Your task to perform on an android device: open app "Google Keep" Image 0: 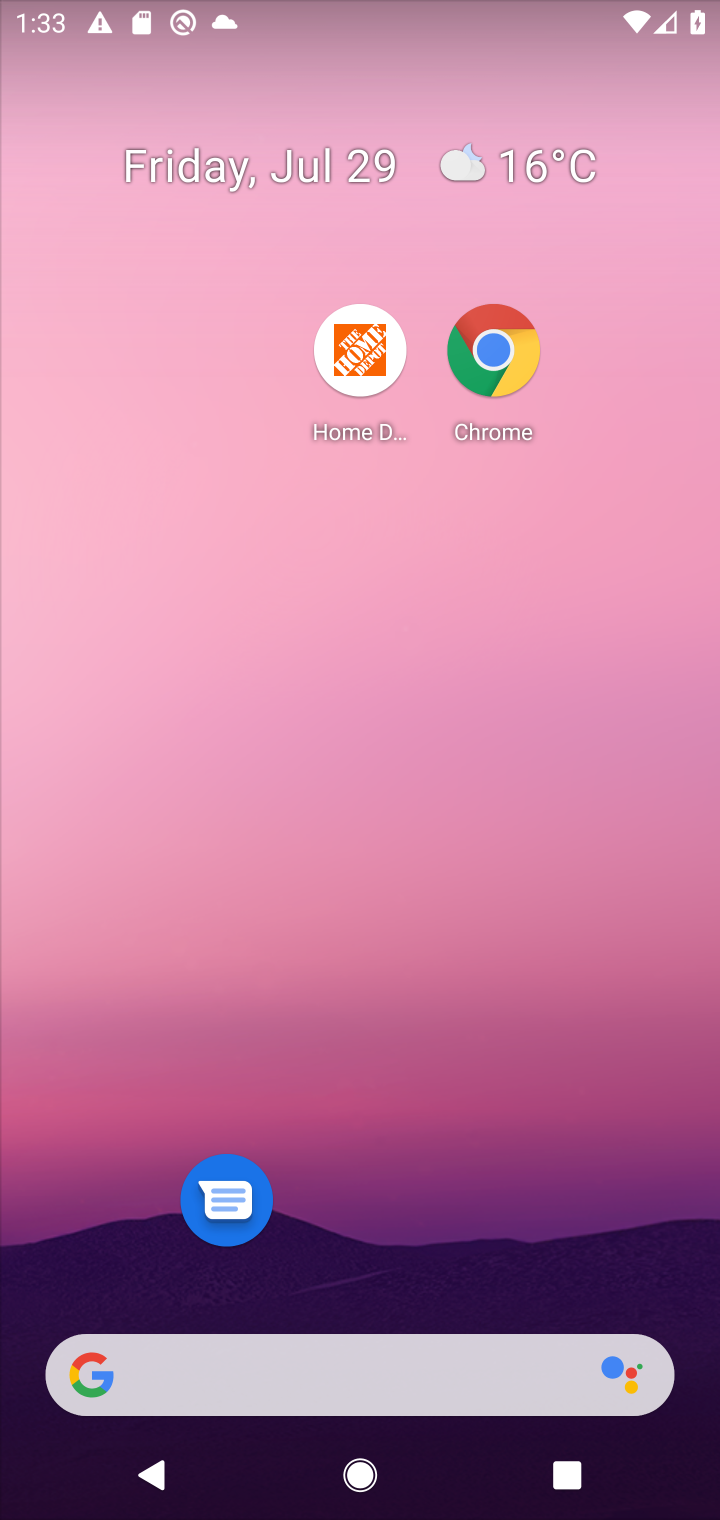
Step 0: drag from (593, 848) to (674, 8)
Your task to perform on an android device: open app "Google Keep" Image 1: 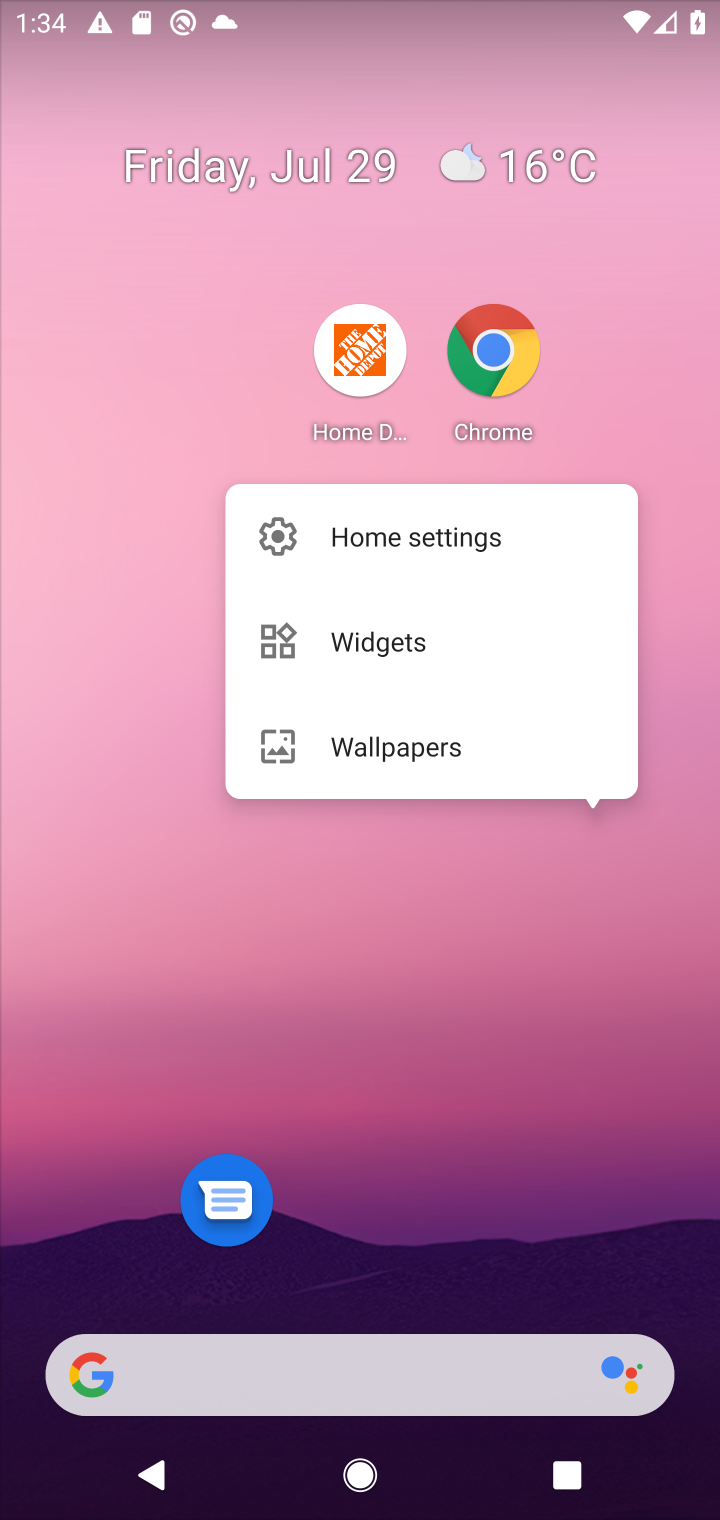
Step 1: click (488, 1167)
Your task to perform on an android device: open app "Google Keep" Image 2: 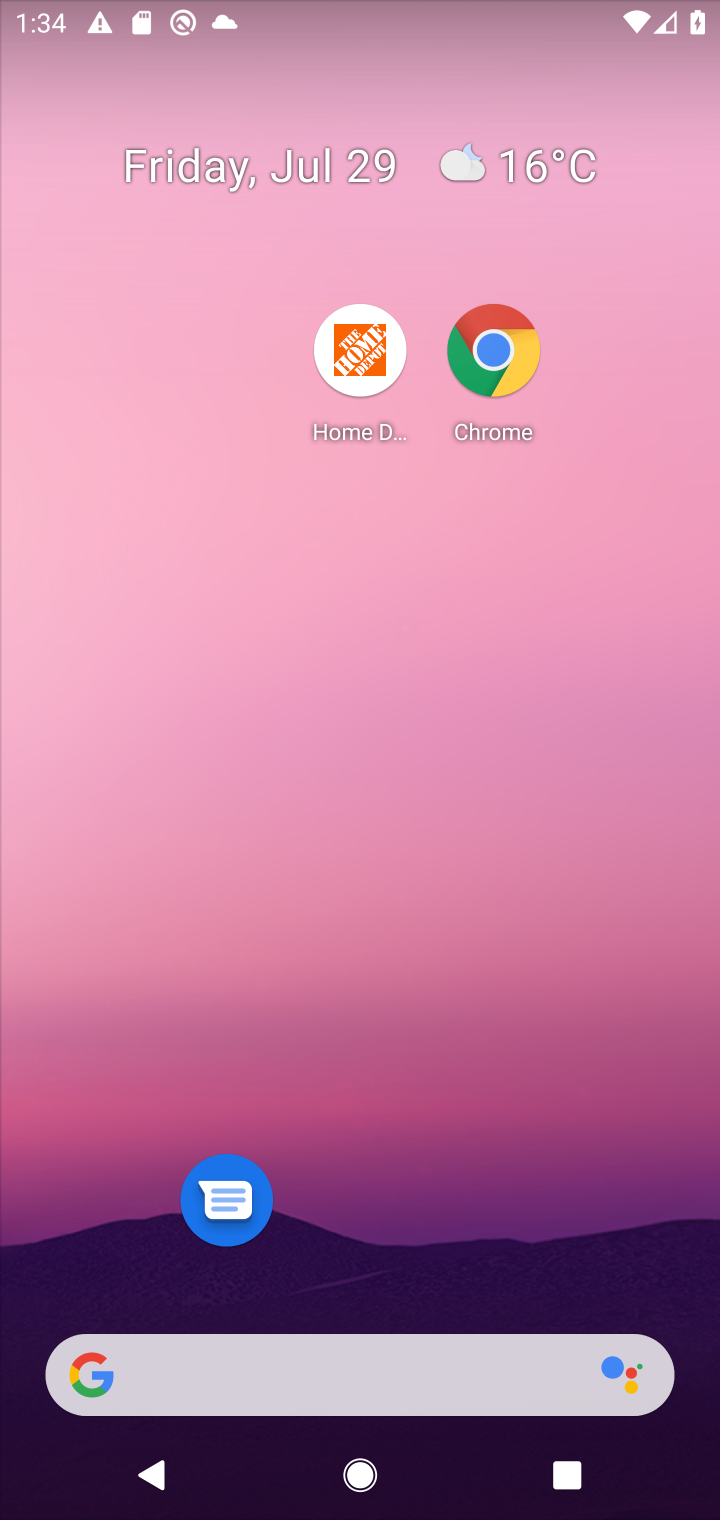
Step 2: drag from (488, 1167) to (478, 90)
Your task to perform on an android device: open app "Google Keep" Image 3: 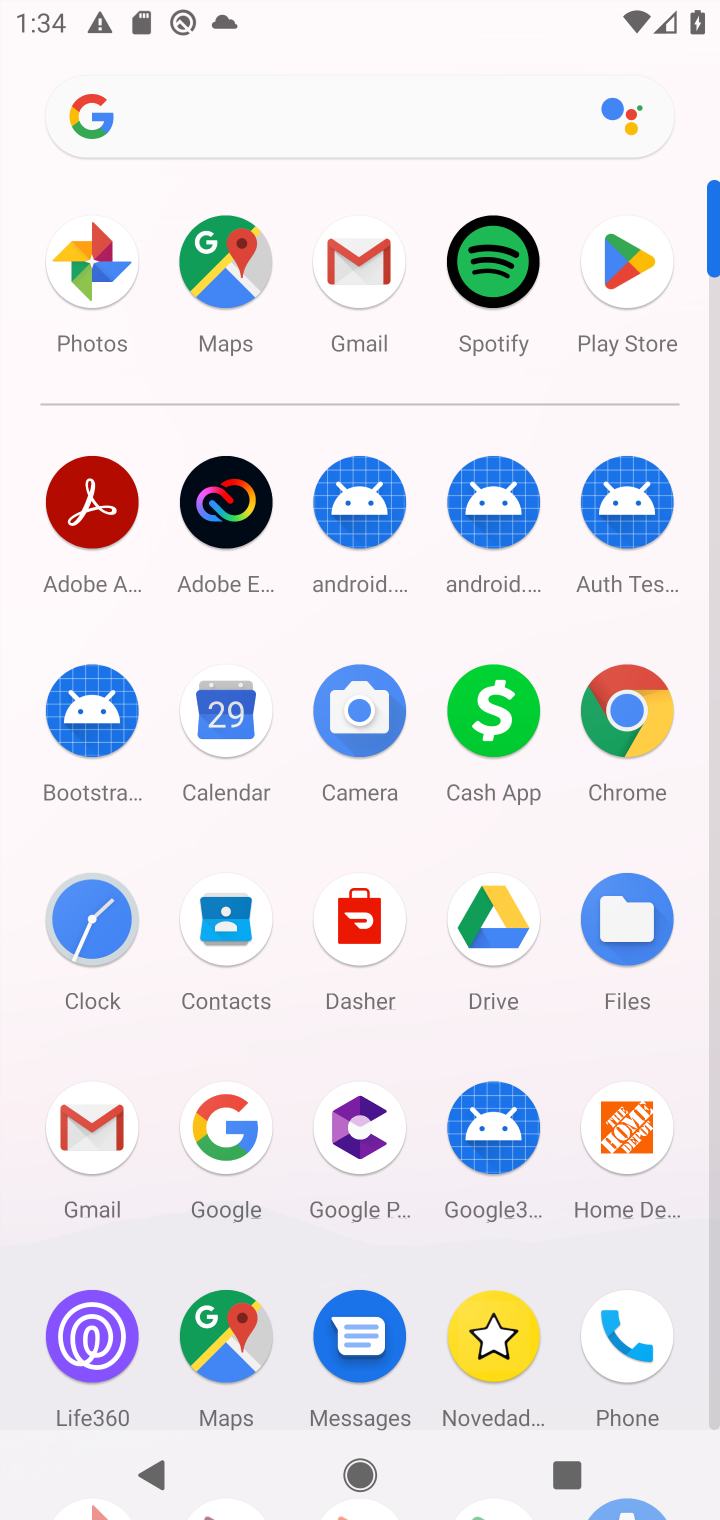
Step 3: click (632, 264)
Your task to perform on an android device: open app "Google Keep" Image 4: 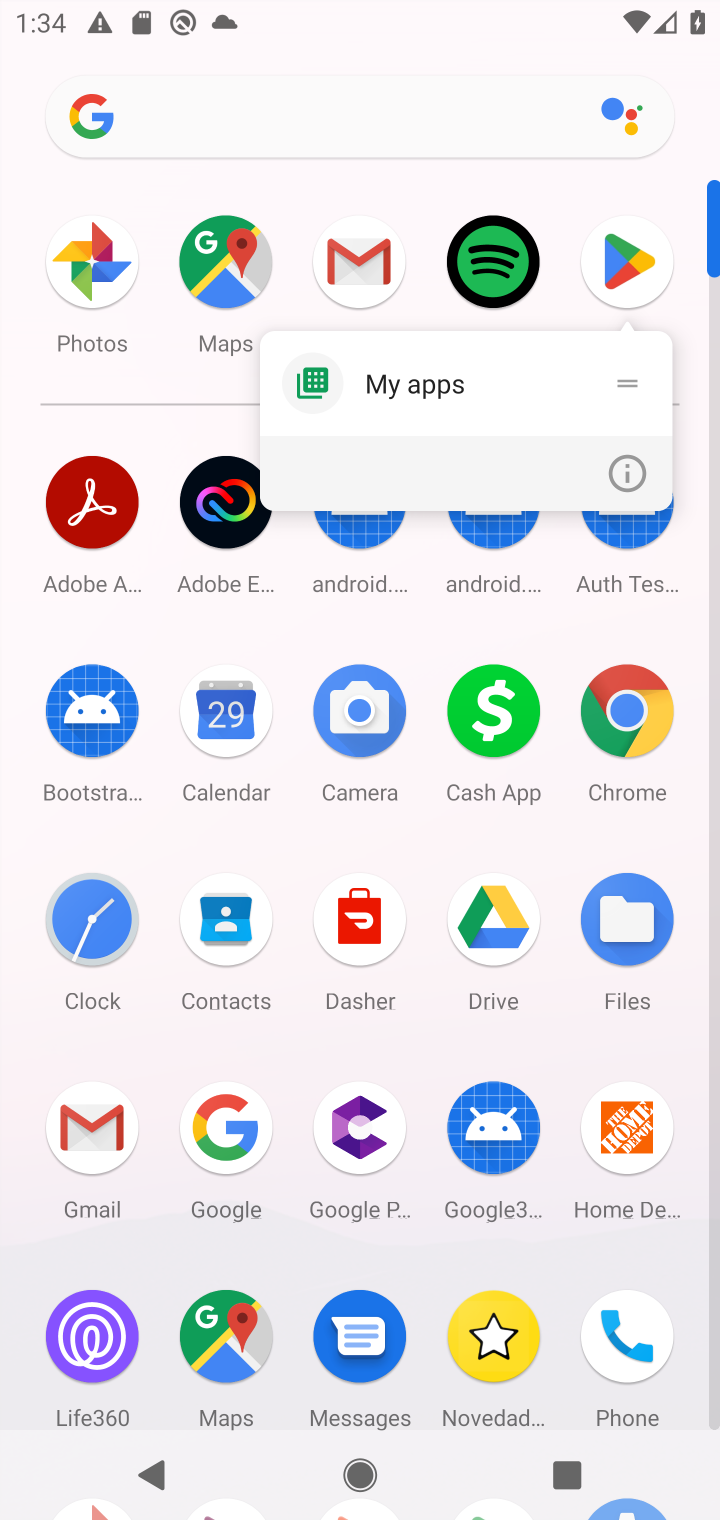
Step 4: click (628, 249)
Your task to perform on an android device: open app "Google Keep" Image 5: 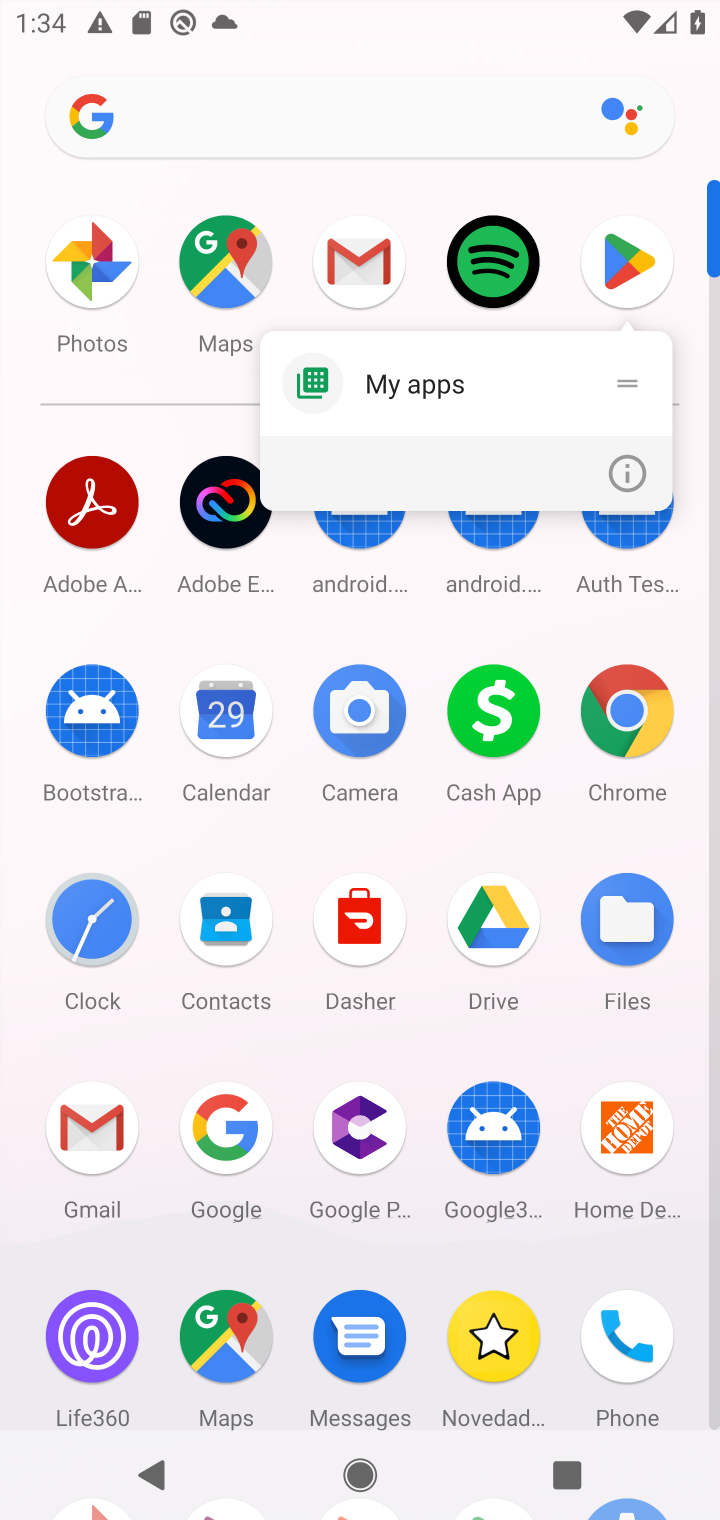
Step 5: click (639, 262)
Your task to perform on an android device: open app "Google Keep" Image 6: 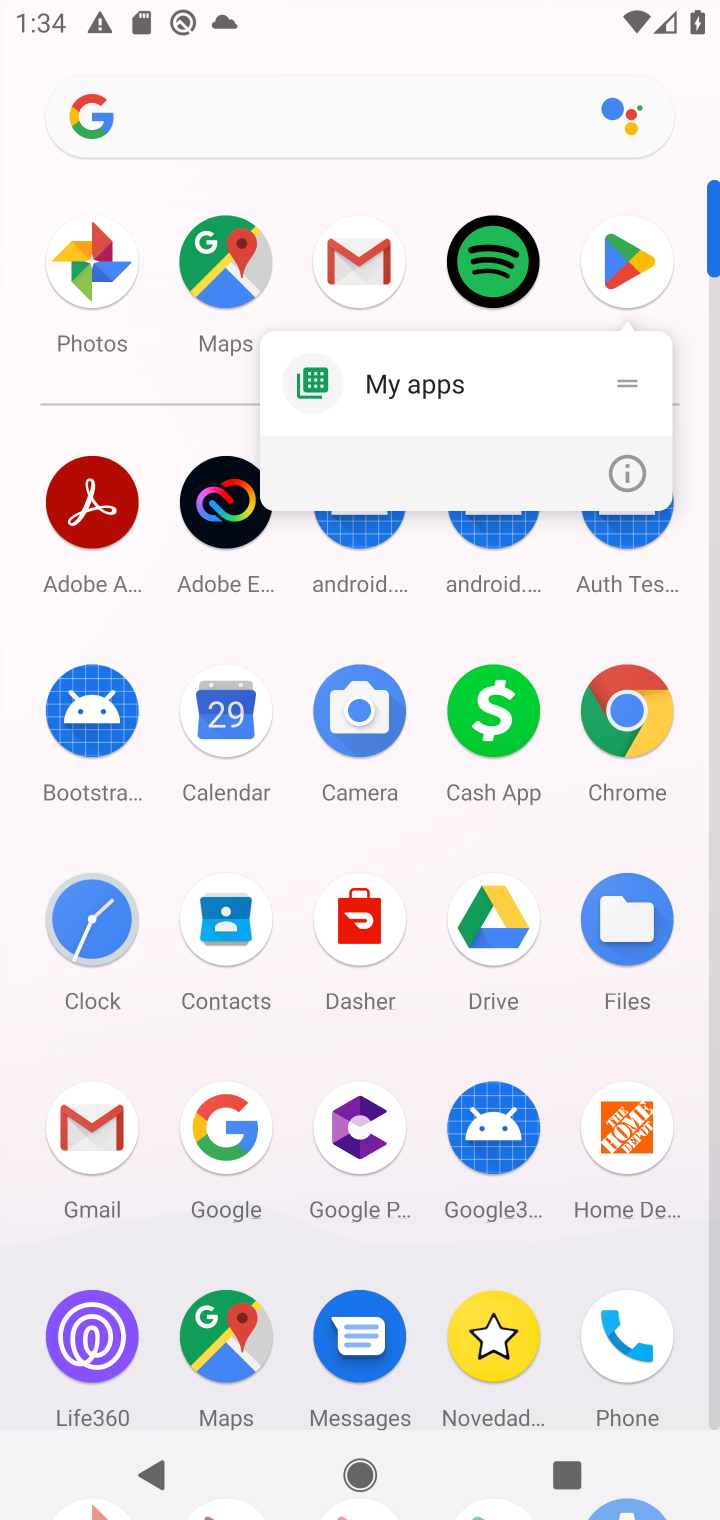
Step 6: click (637, 260)
Your task to perform on an android device: open app "Google Keep" Image 7: 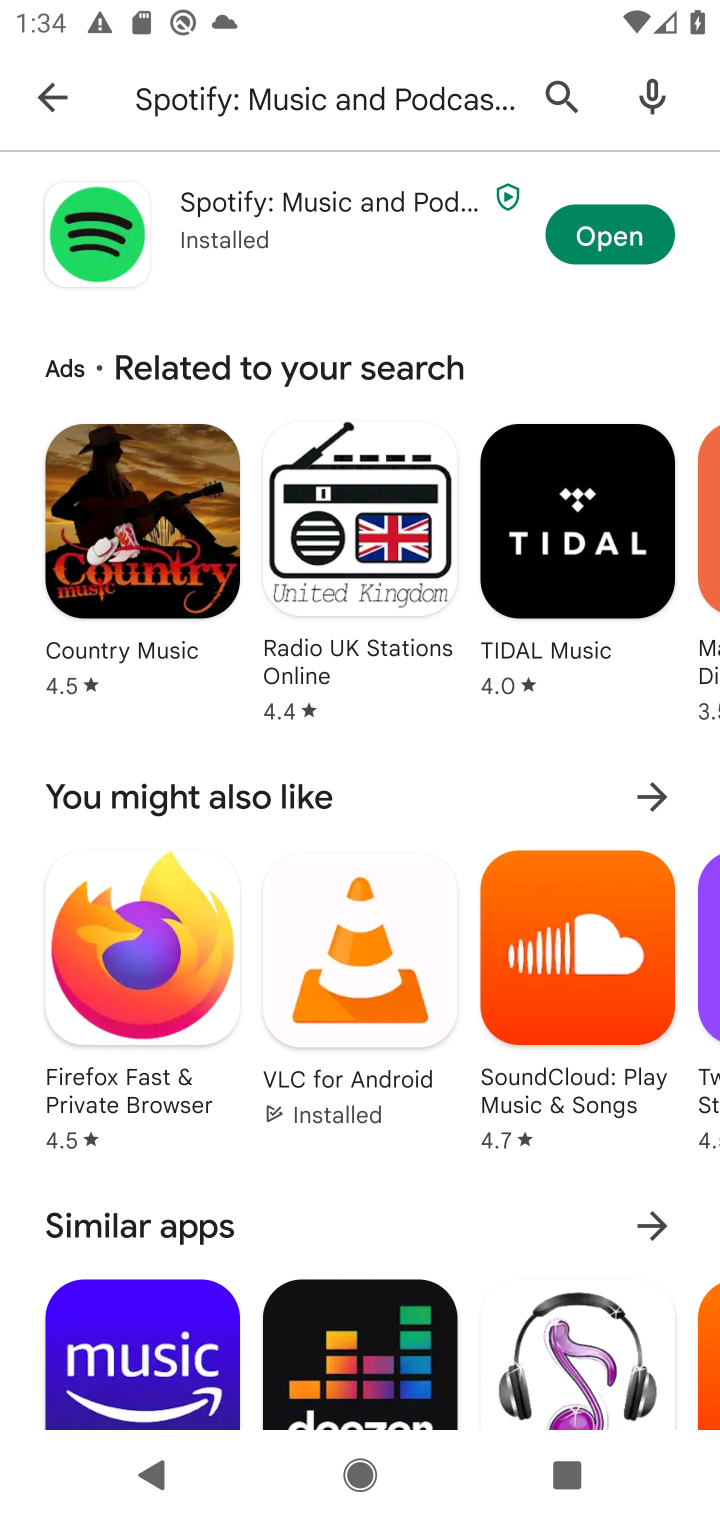
Step 7: click (398, 112)
Your task to perform on an android device: open app "Google Keep" Image 8: 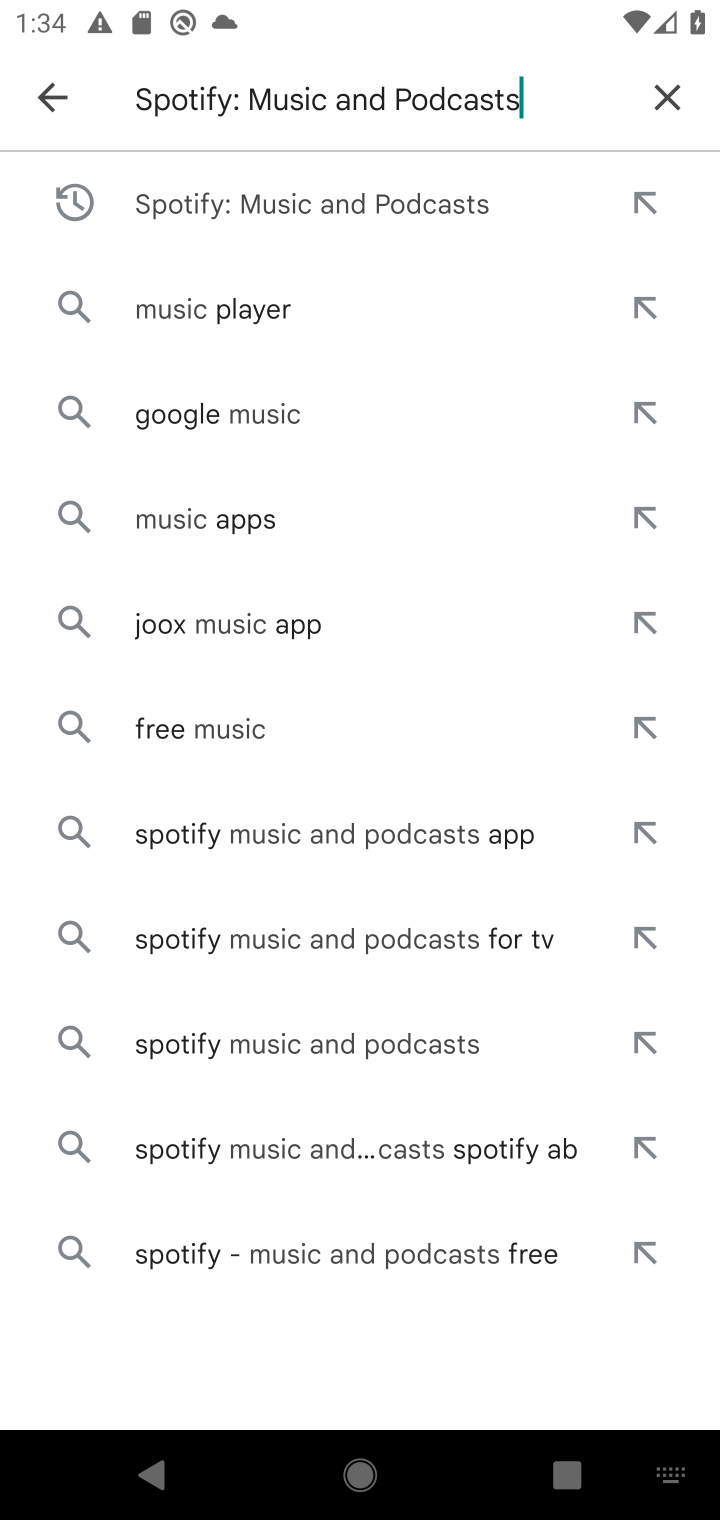
Step 8: click (662, 95)
Your task to perform on an android device: open app "Google Keep" Image 9: 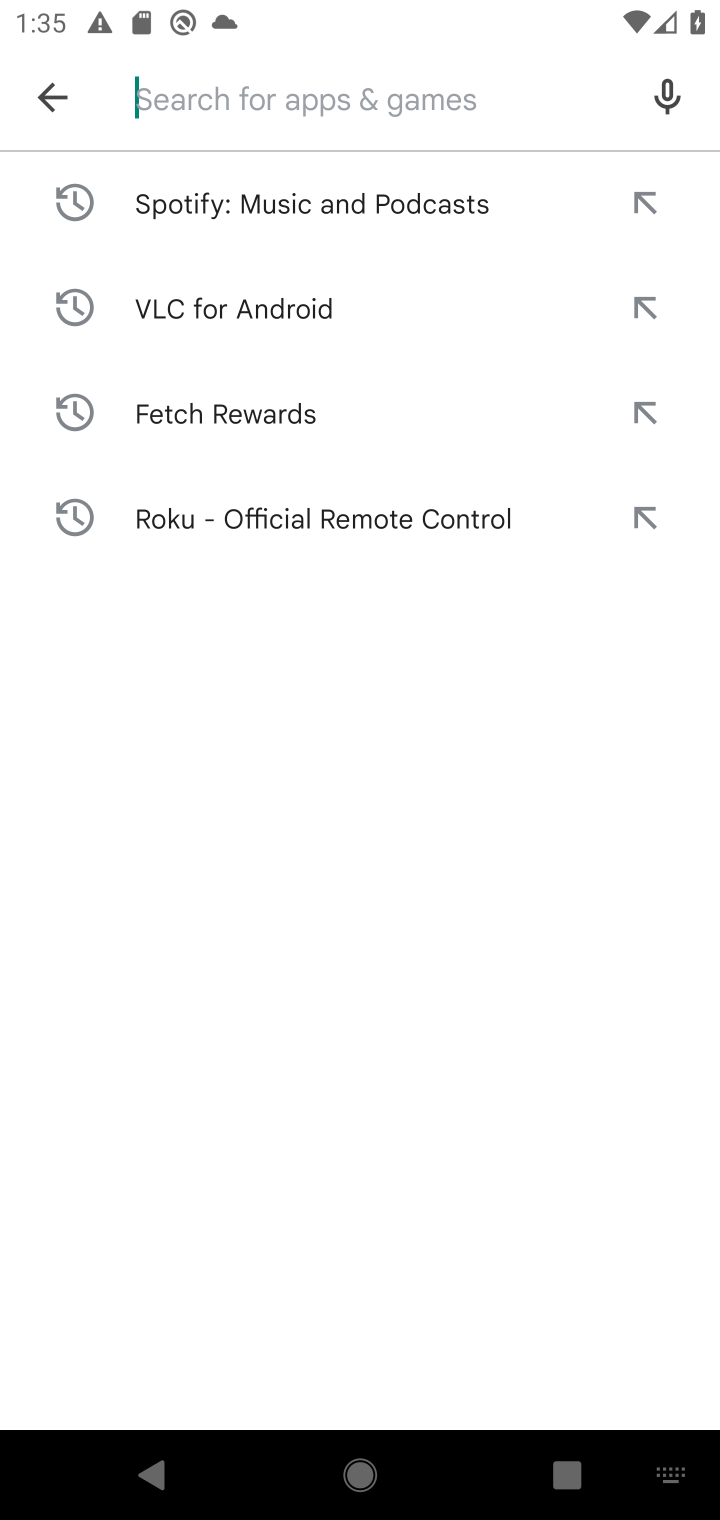
Step 9: type "Google Keep"
Your task to perform on an android device: open app "Google Keep" Image 10: 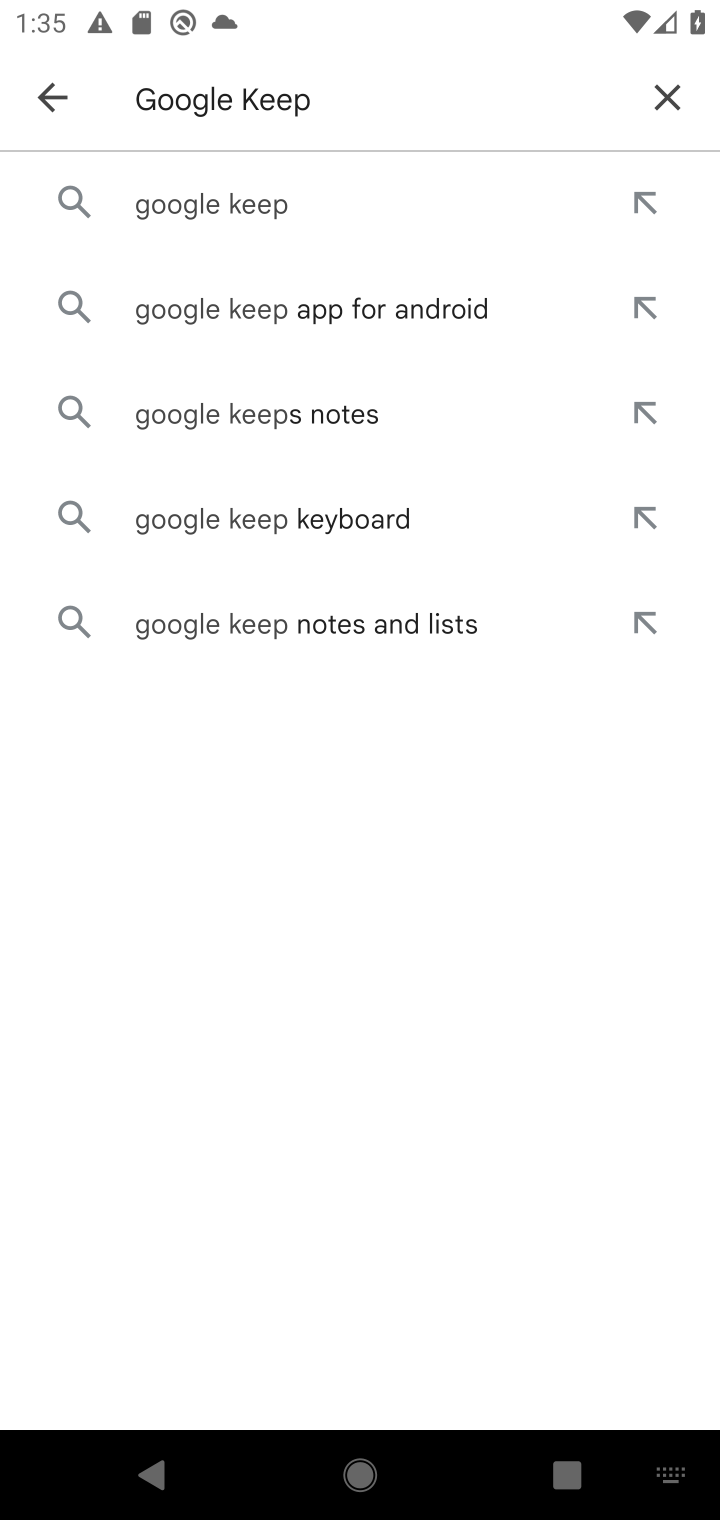
Step 10: press enter
Your task to perform on an android device: open app "Google Keep" Image 11: 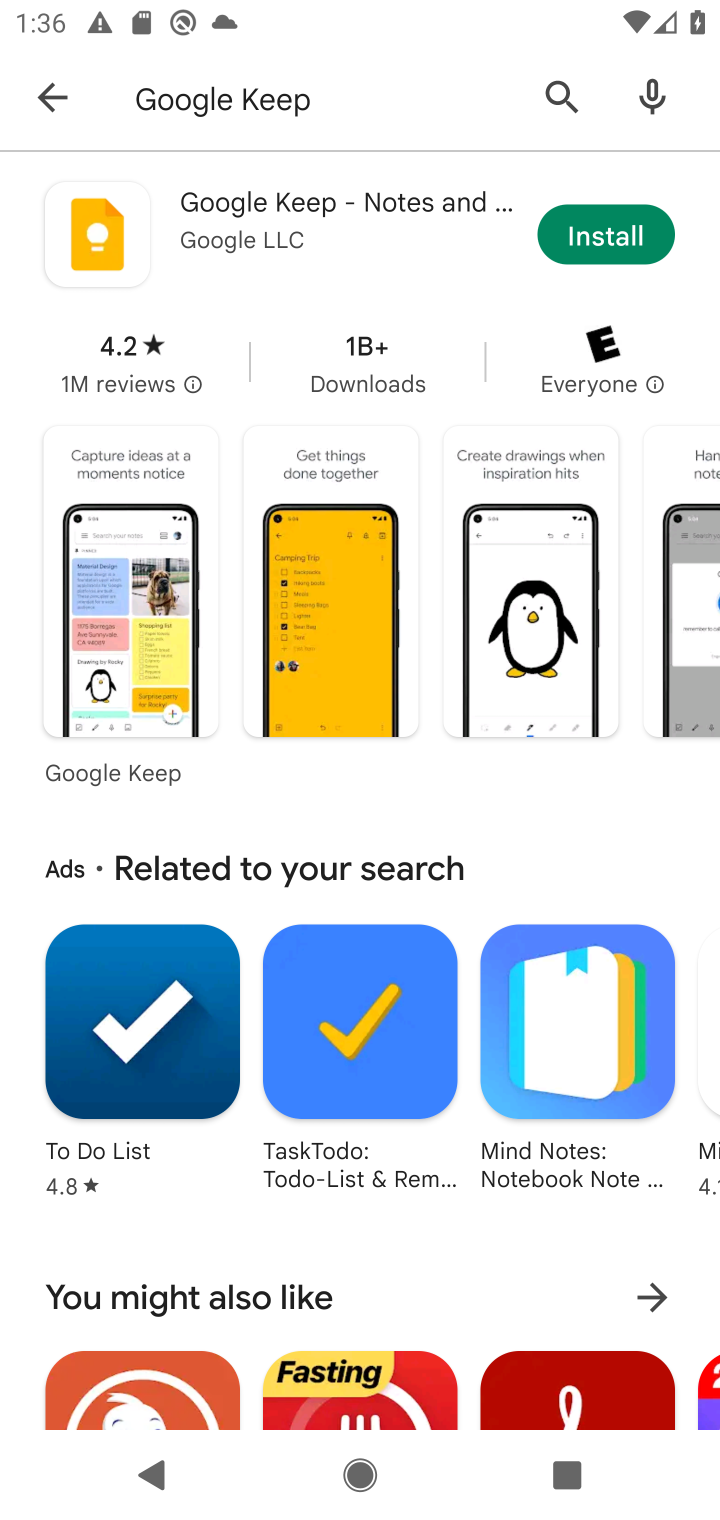
Step 11: task complete